Your task to perform on an android device: turn off picture-in-picture Image 0: 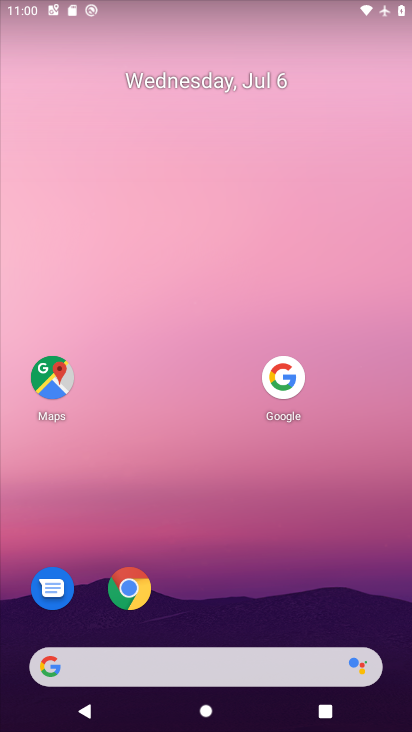
Step 0: click (133, 583)
Your task to perform on an android device: turn off picture-in-picture Image 1: 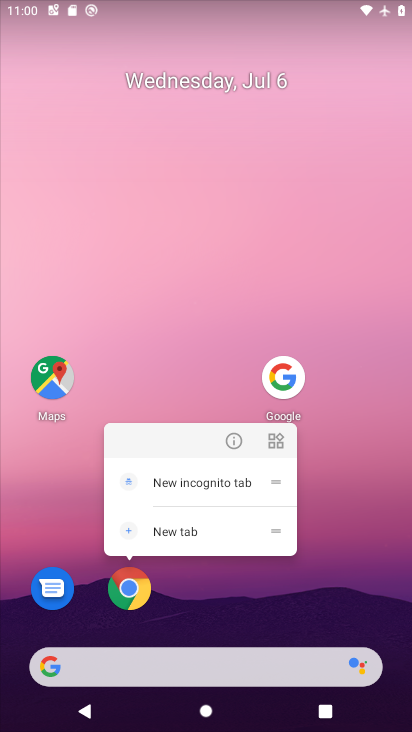
Step 1: click (233, 446)
Your task to perform on an android device: turn off picture-in-picture Image 2: 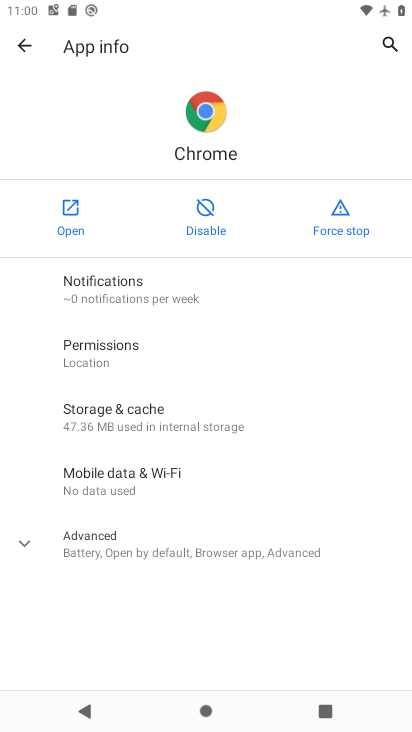
Step 2: click (134, 540)
Your task to perform on an android device: turn off picture-in-picture Image 3: 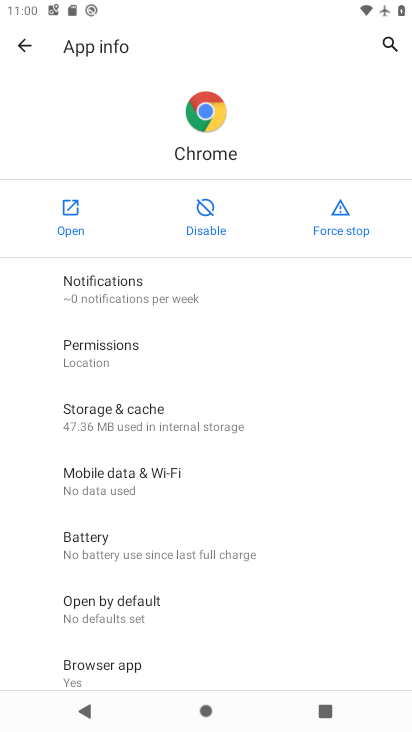
Step 3: drag from (176, 590) to (337, 189)
Your task to perform on an android device: turn off picture-in-picture Image 4: 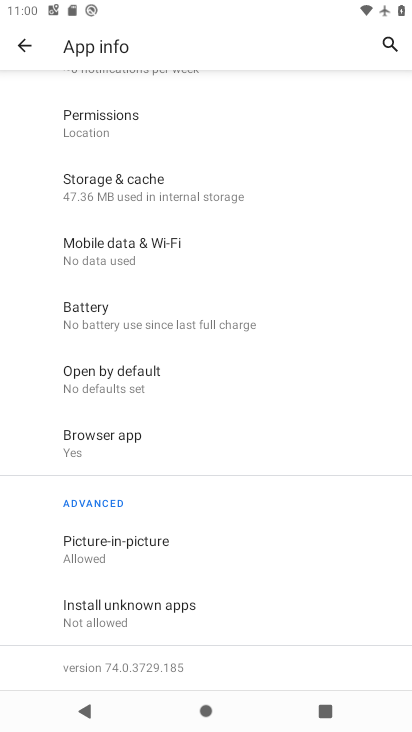
Step 4: click (137, 542)
Your task to perform on an android device: turn off picture-in-picture Image 5: 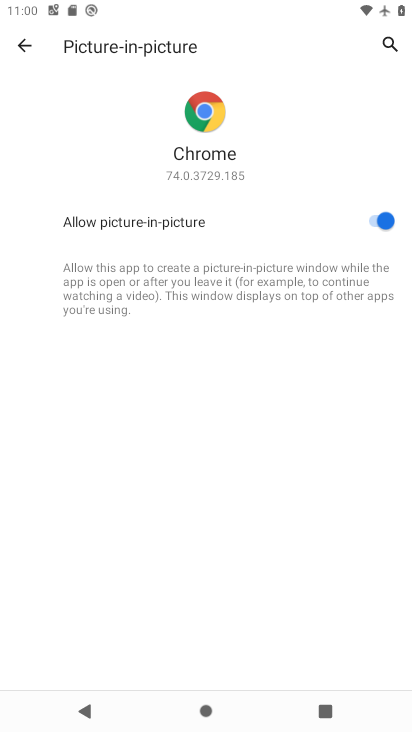
Step 5: click (371, 218)
Your task to perform on an android device: turn off picture-in-picture Image 6: 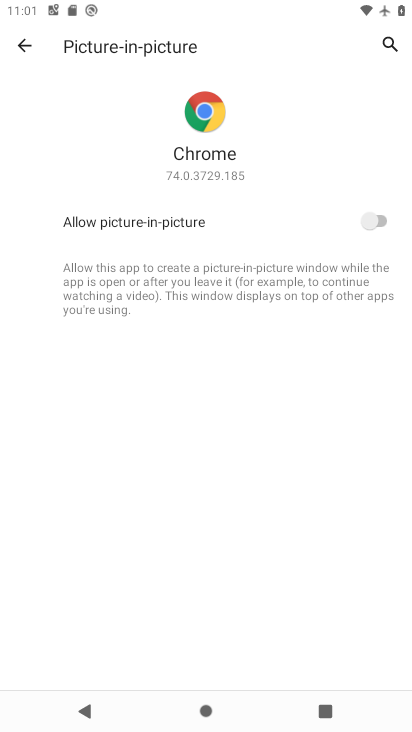
Step 6: task complete